Your task to perform on an android device: refresh tabs in the chrome app Image 0: 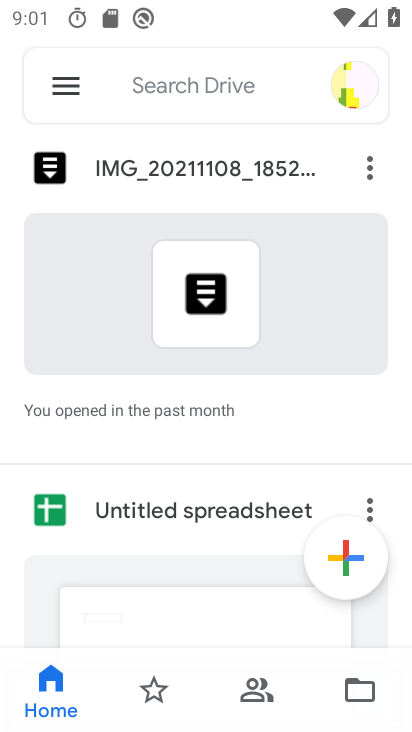
Step 0: press home button
Your task to perform on an android device: refresh tabs in the chrome app Image 1: 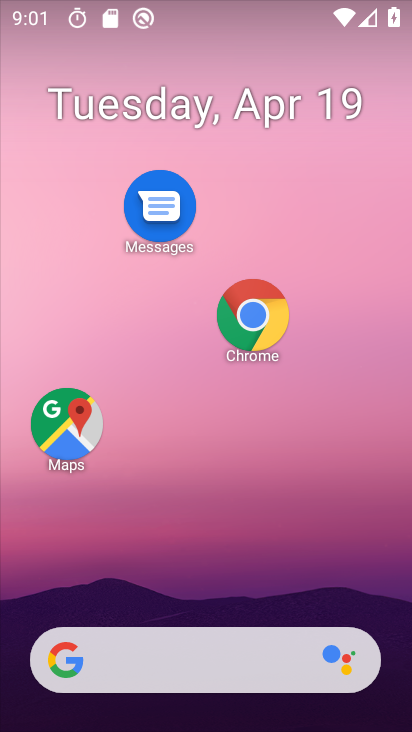
Step 1: click (247, 325)
Your task to perform on an android device: refresh tabs in the chrome app Image 2: 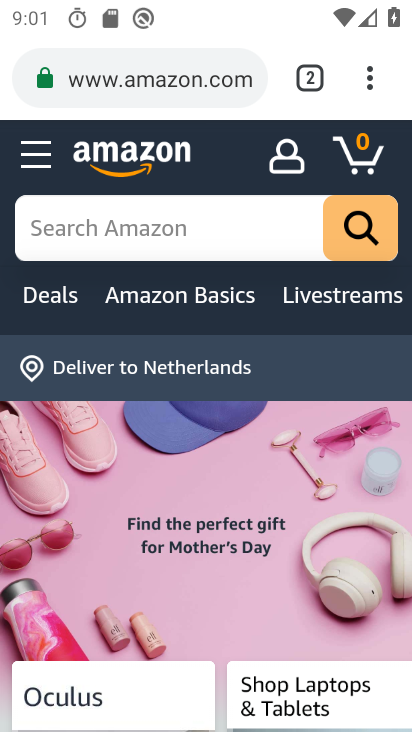
Step 2: click (370, 79)
Your task to perform on an android device: refresh tabs in the chrome app Image 3: 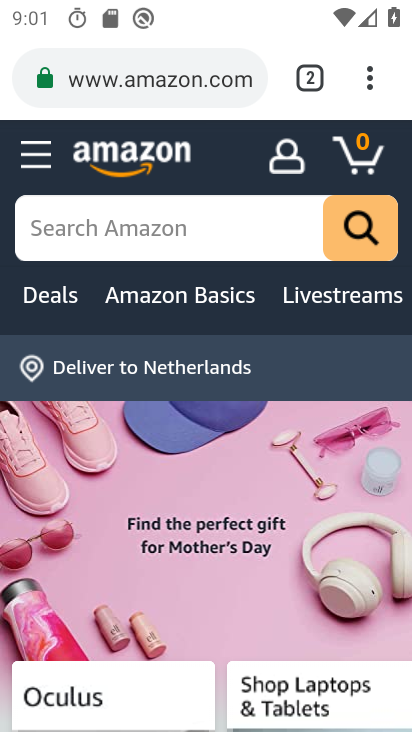
Step 3: task complete